Your task to perform on an android device: open app "Yahoo Mail" Image 0: 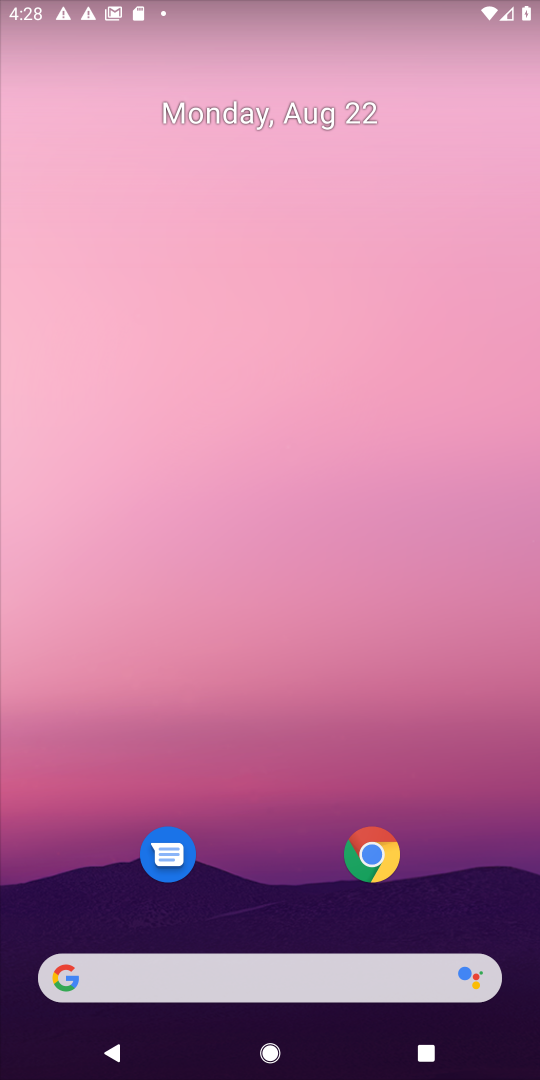
Step 0: drag from (287, 787) to (287, 46)
Your task to perform on an android device: open app "Yahoo Mail" Image 1: 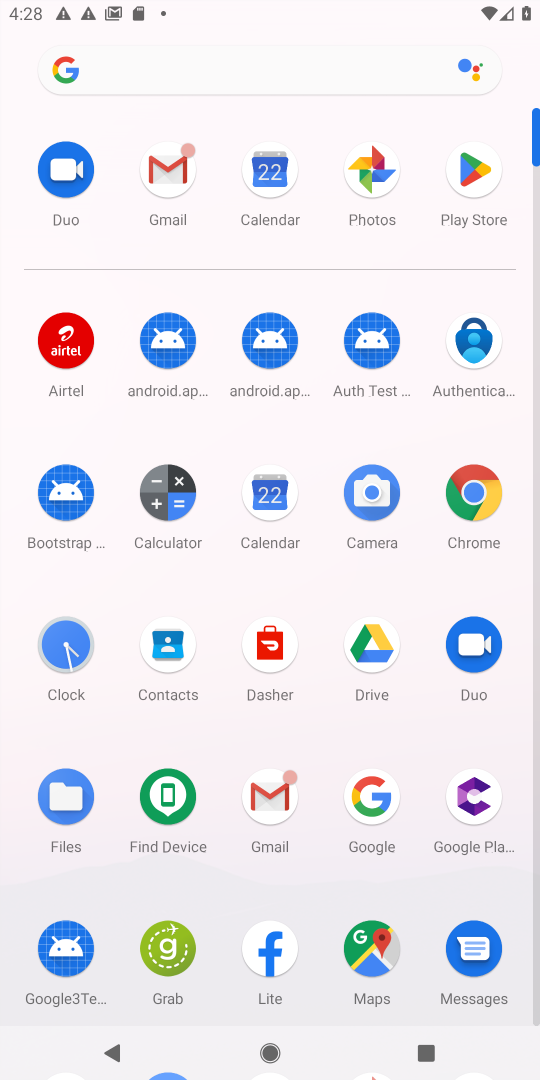
Step 1: click (475, 173)
Your task to perform on an android device: open app "Yahoo Mail" Image 2: 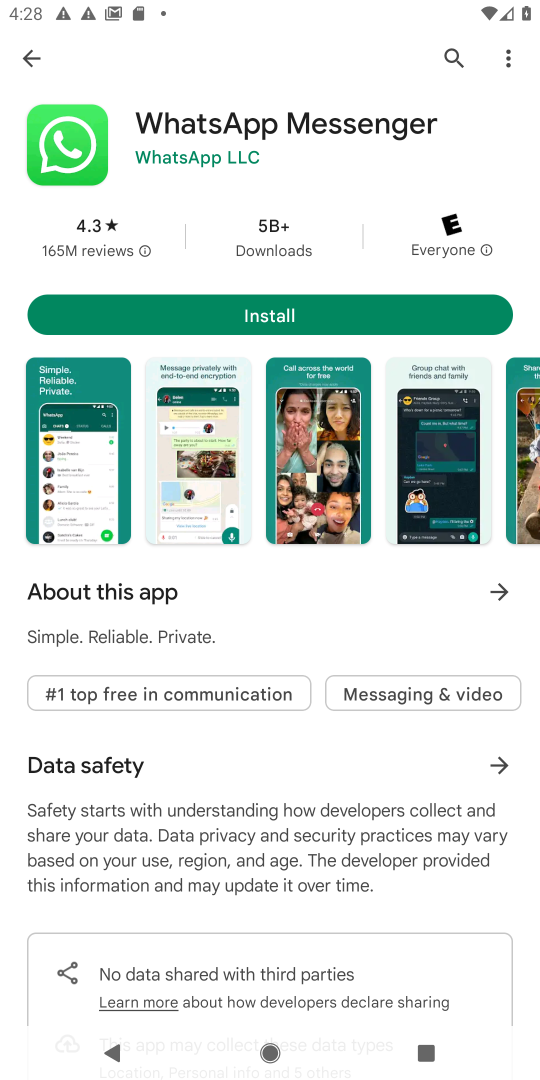
Step 2: click (452, 49)
Your task to perform on an android device: open app "Yahoo Mail" Image 3: 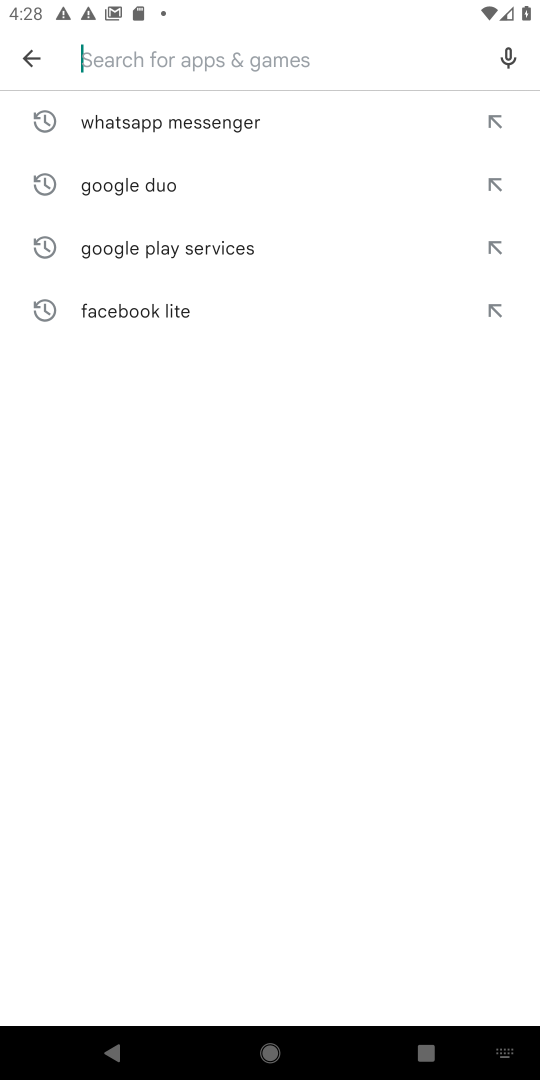
Step 3: type "Yahoo Mail"
Your task to perform on an android device: open app "Yahoo Mail" Image 4: 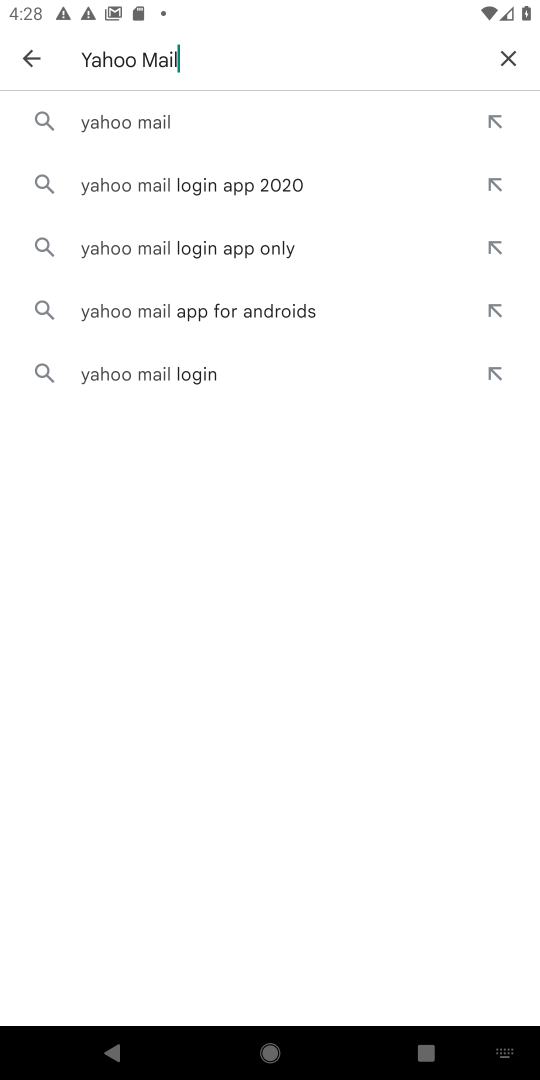
Step 4: click (123, 116)
Your task to perform on an android device: open app "Yahoo Mail" Image 5: 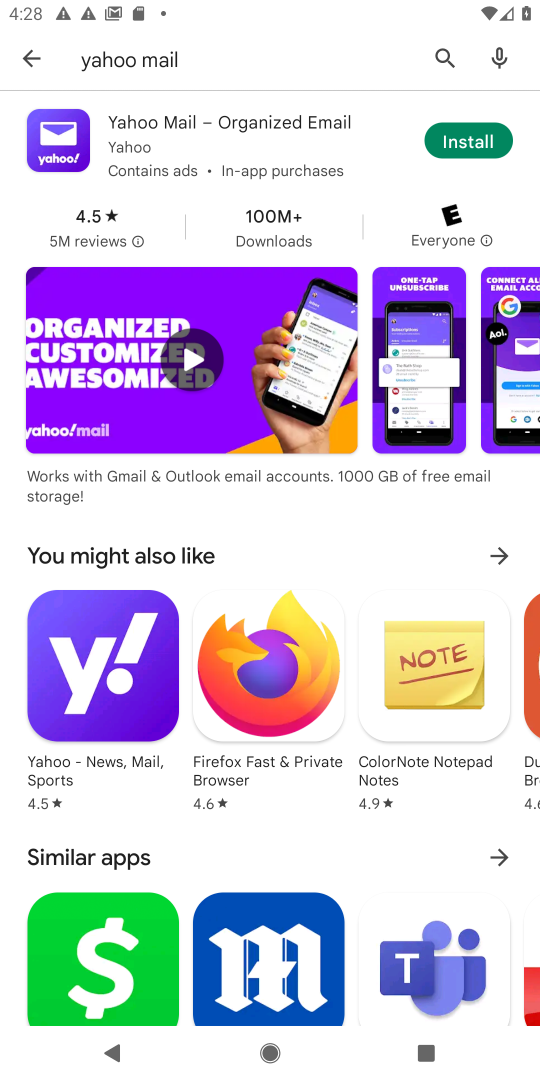
Step 5: task complete